Your task to perform on an android device: uninstall "Spotify: Music and Podcasts" Image 0: 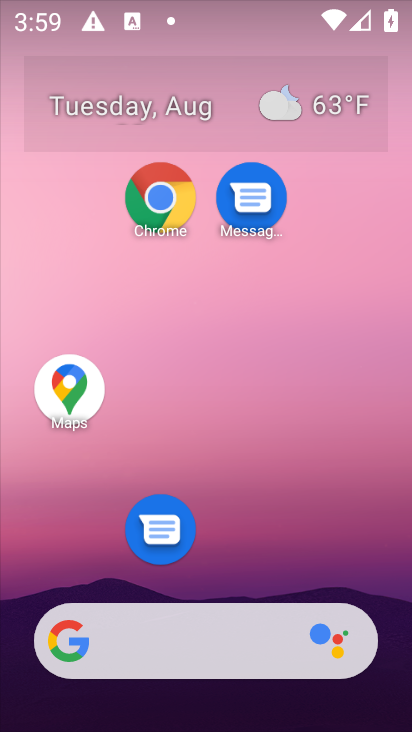
Step 0: drag from (255, 542) to (130, 9)
Your task to perform on an android device: uninstall "Spotify: Music and Podcasts" Image 1: 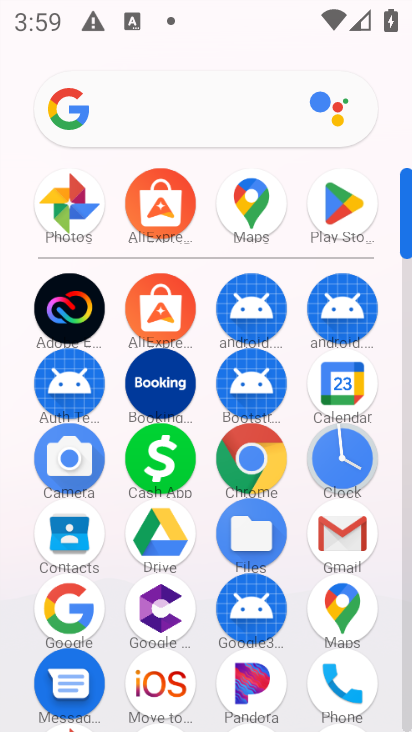
Step 1: click (329, 207)
Your task to perform on an android device: uninstall "Spotify: Music and Podcasts" Image 2: 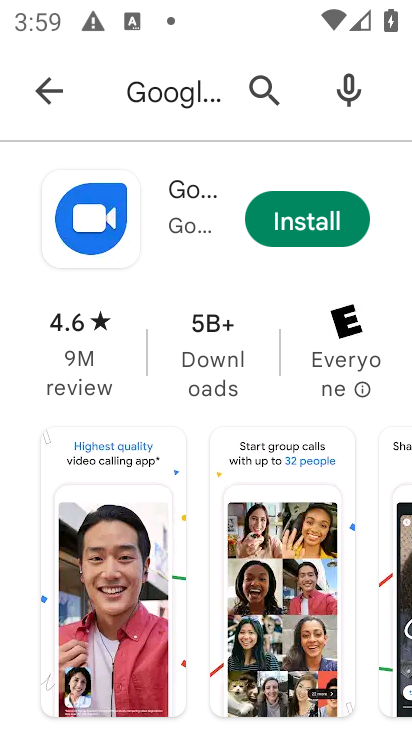
Step 2: press back button
Your task to perform on an android device: uninstall "Spotify: Music and Podcasts" Image 3: 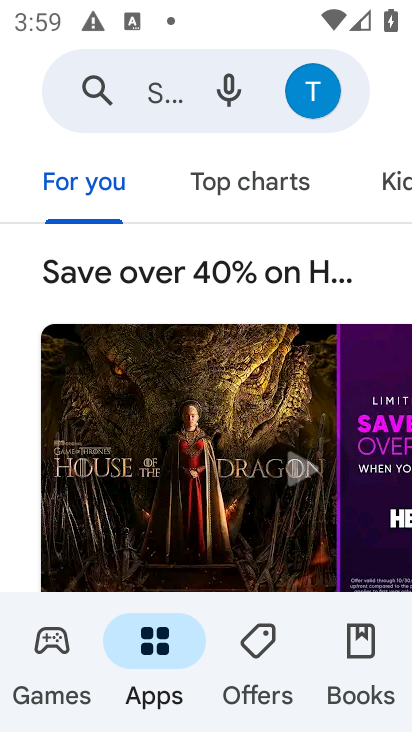
Step 3: click (183, 97)
Your task to perform on an android device: uninstall "Spotify: Music and Podcasts" Image 4: 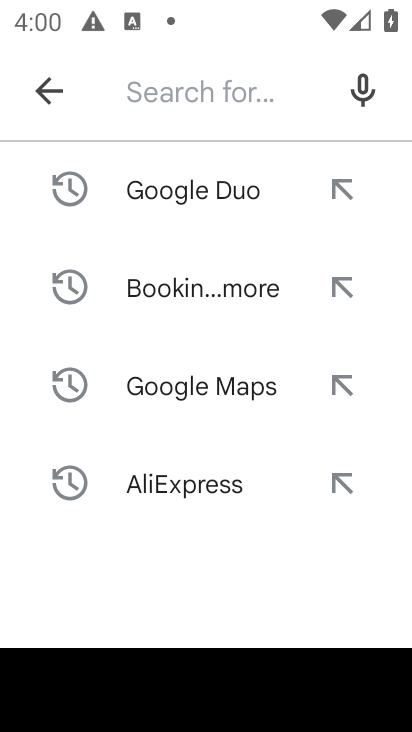
Step 4: type "potify: Music and Podcasts"
Your task to perform on an android device: uninstall "Spotify: Music and Podcasts" Image 5: 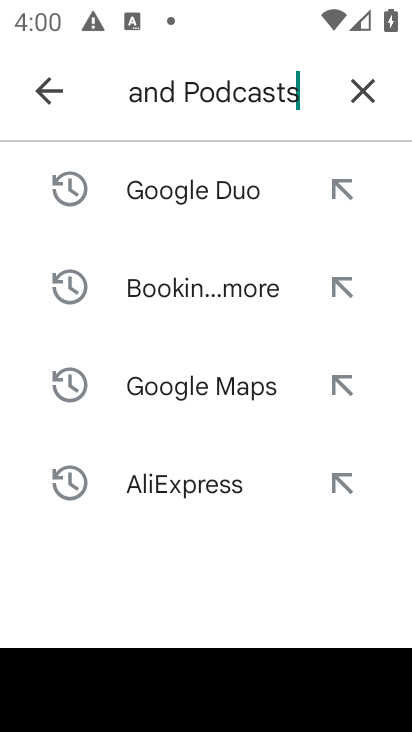
Step 5: press enter
Your task to perform on an android device: uninstall "Spotify: Music and Podcasts" Image 6: 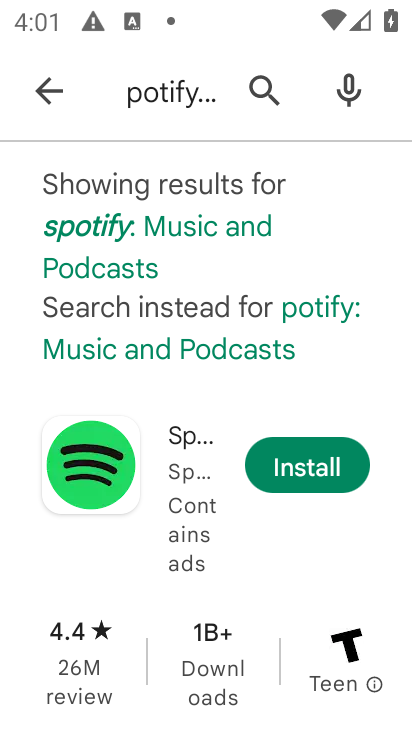
Step 6: task complete